Your task to perform on an android device: set the timer Image 0: 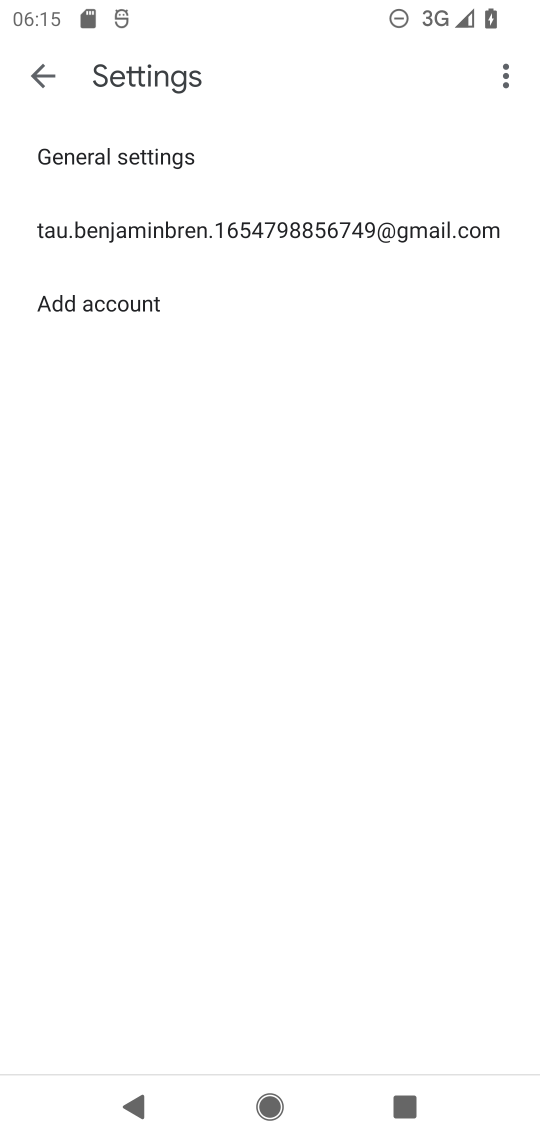
Step 0: press home button
Your task to perform on an android device: set the timer Image 1: 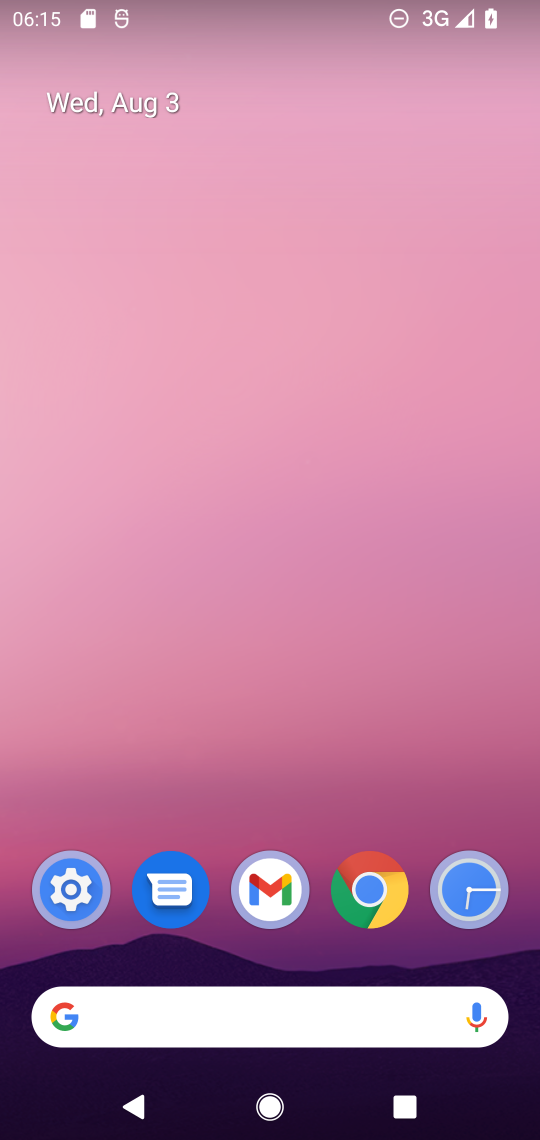
Step 1: drag from (319, 800) to (370, 112)
Your task to perform on an android device: set the timer Image 2: 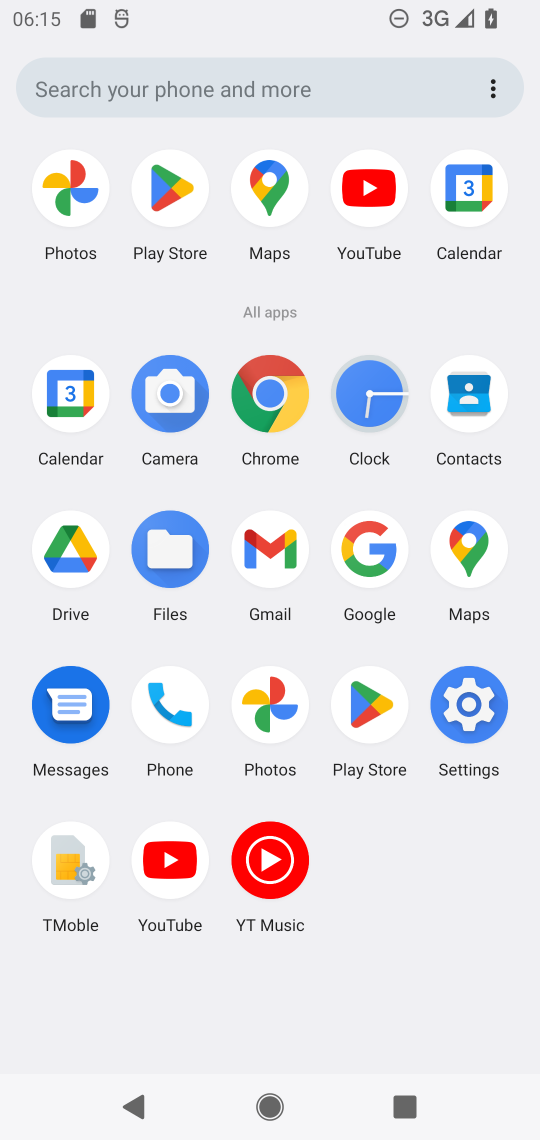
Step 2: click (370, 369)
Your task to perform on an android device: set the timer Image 3: 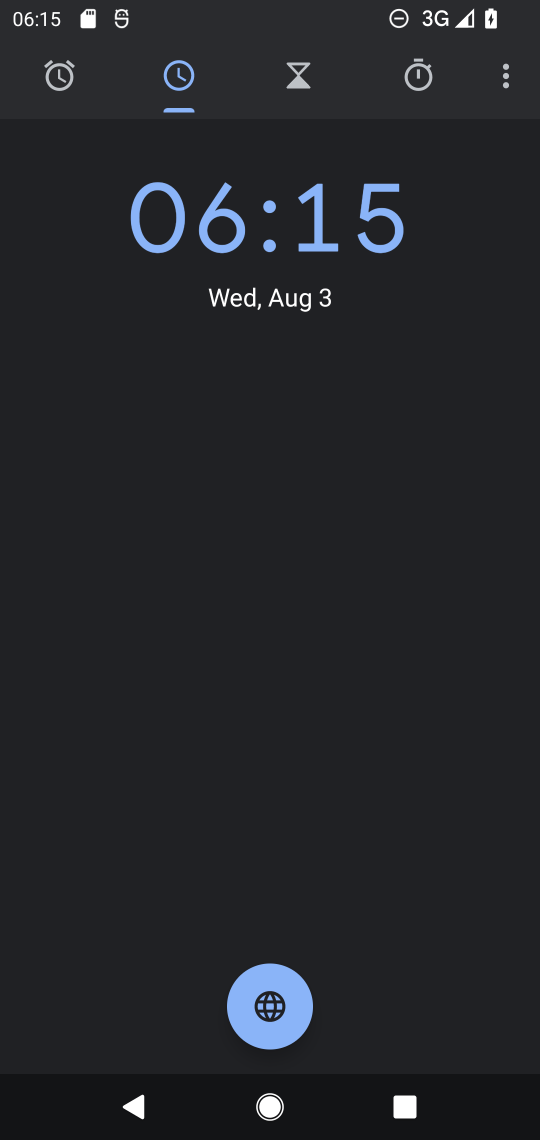
Step 3: click (312, 85)
Your task to perform on an android device: set the timer Image 4: 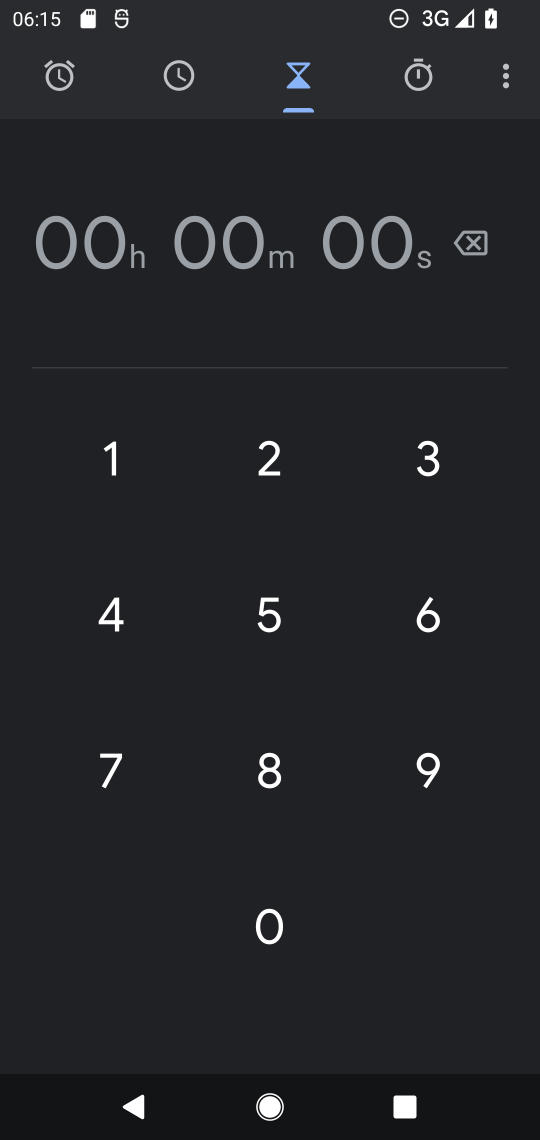
Step 4: task complete